Your task to perform on an android device: Open network settings Image 0: 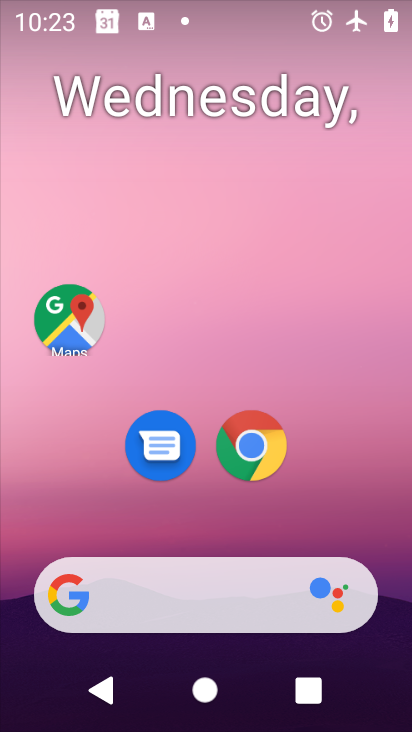
Step 0: drag from (304, 502) to (0, 262)
Your task to perform on an android device: Open network settings Image 1: 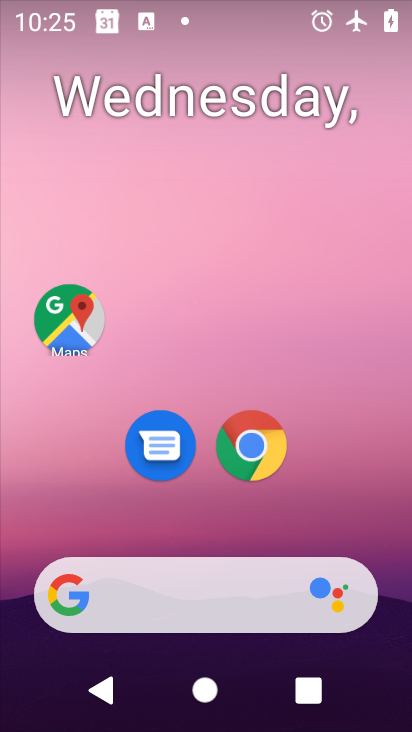
Step 1: click (176, 257)
Your task to perform on an android device: Open network settings Image 2: 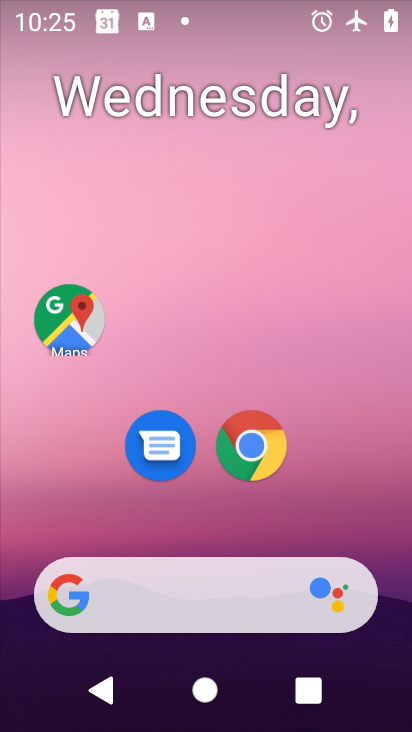
Step 2: drag from (366, 490) to (381, 59)
Your task to perform on an android device: Open network settings Image 3: 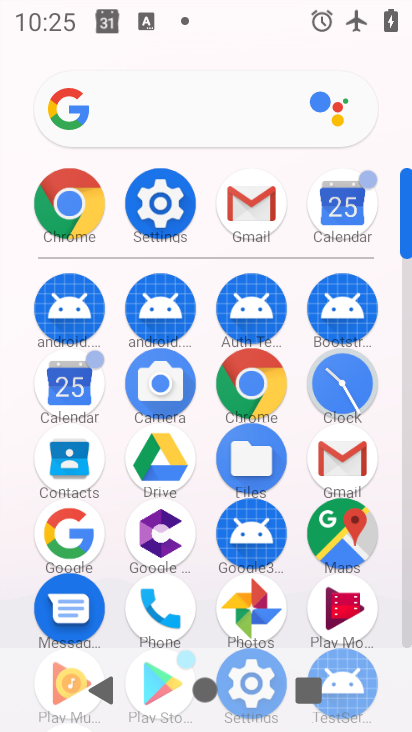
Step 3: click (169, 218)
Your task to perform on an android device: Open network settings Image 4: 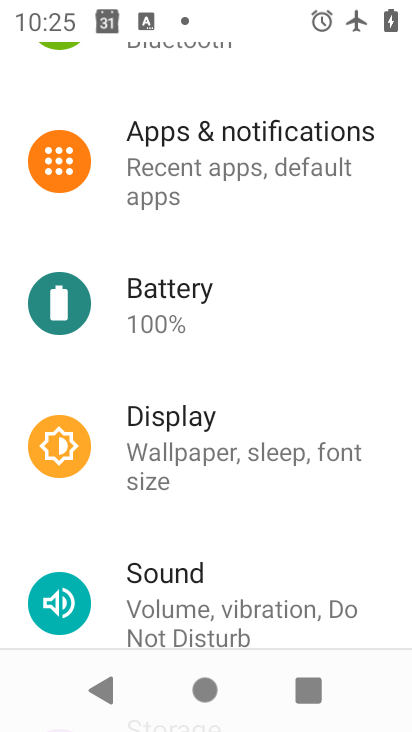
Step 4: drag from (217, 178) to (250, 439)
Your task to perform on an android device: Open network settings Image 5: 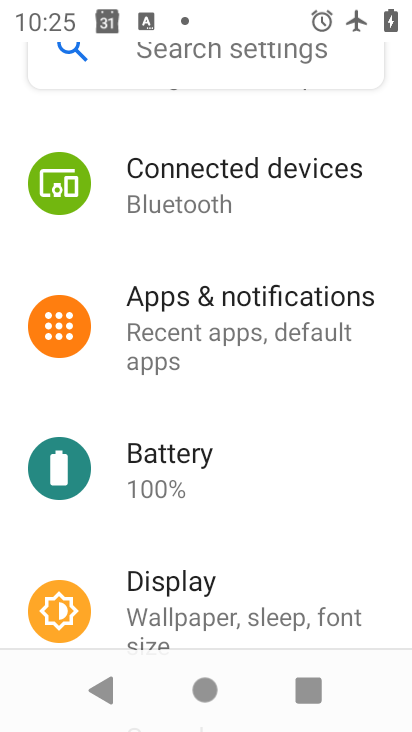
Step 5: drag from (211, 178) to (228, 446)
Your task to perform on an android device: Open network settings Image 6: 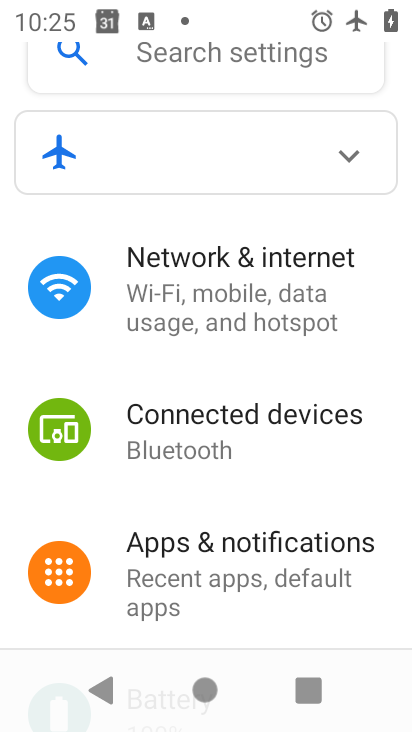
Step 6: drag from (206, 214) to (242, 502)
Your task to perform on an android device: Open network settings Image 7: 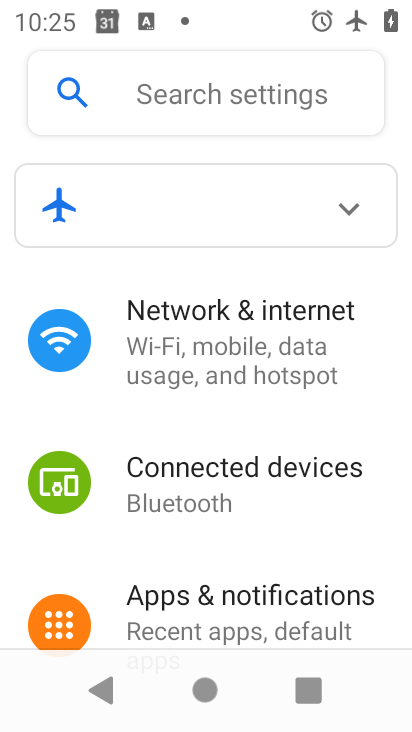
Step 7: click (204, 331)
Your task to perform on an android device: Open network settings Image 8: 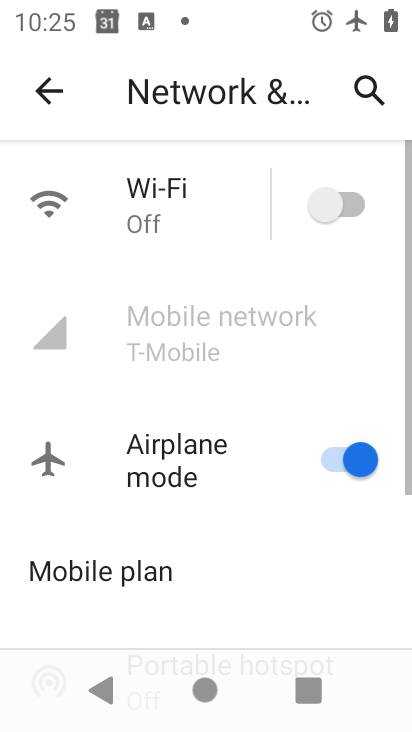
Step 8: task complete